Your task to perform on an android device: change notifications settings Image 0: 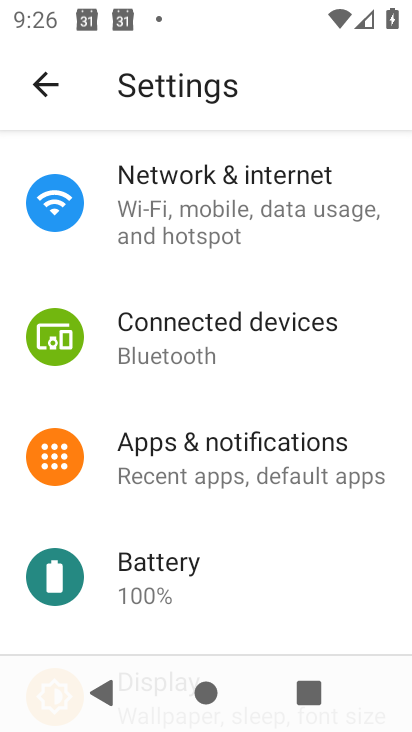
Step 0: click (218, 449)
Your task to perform on an android device: change notifications settings Image 1: 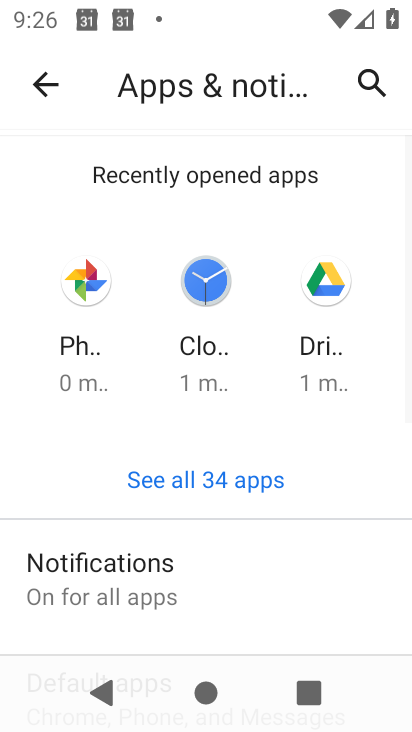
Step 1: drag from (207, 515) to (209, 168)
Your task to perform on an android device: change notifications settings Image 2: 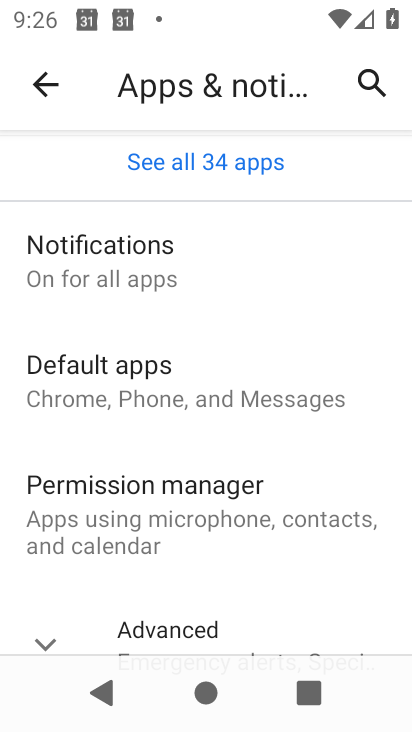
Step 2: click (126, 255)
Your task to perform on an android device: change notifications settings Image 3: 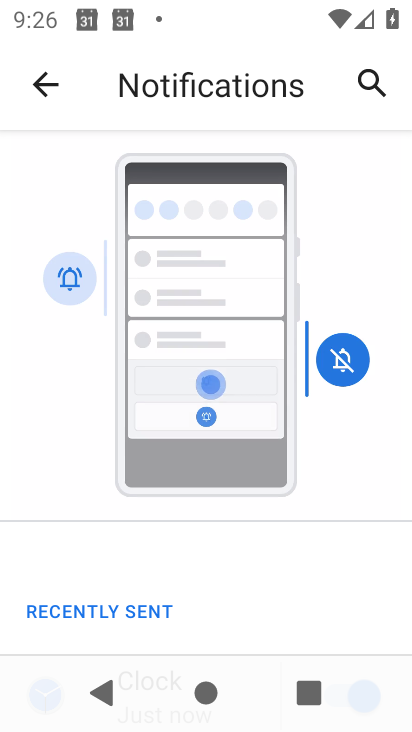
Step 3: drag from (196, 559) to (217, 154)
Your task to perform on an android device: change notifications settings Image 4: 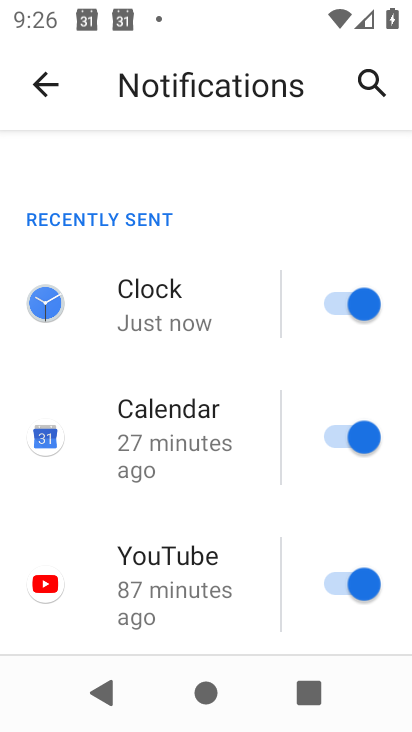
Step 4: drag from (177, 456) to (163, 40)
Your task to perform on an android device: change notifications settings Image 5: 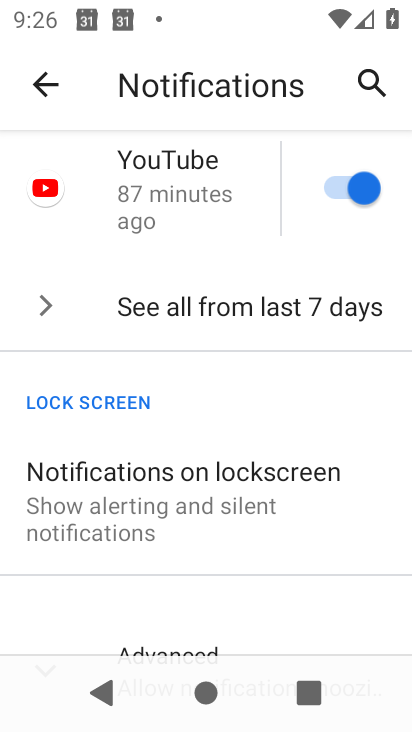
Step 5: click (116, 326)
Your task to perform on an android device: change notifications settings Image 6: 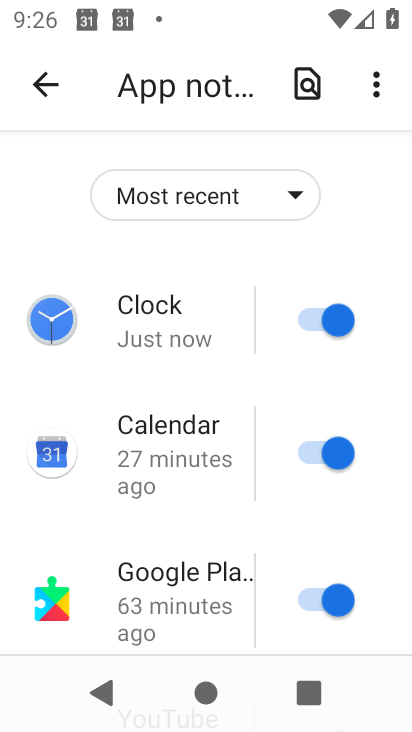
Step 6: click (292, 199)
Your task to perform on an android device: change notifications settings Image 7: 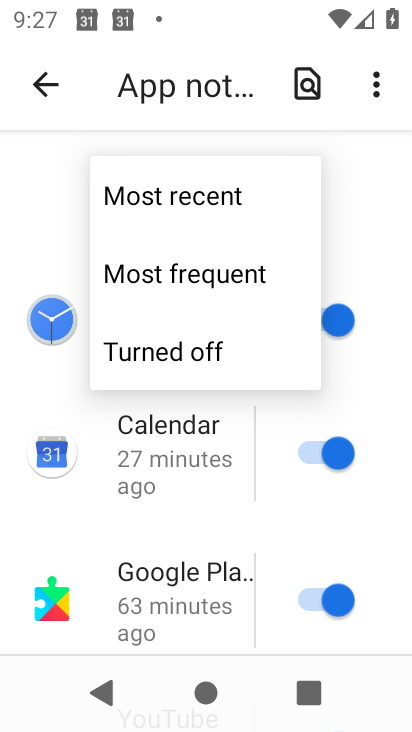
Step 7: click (212, 268)
Your task to perform on an android device: change notifications settings Image 8: 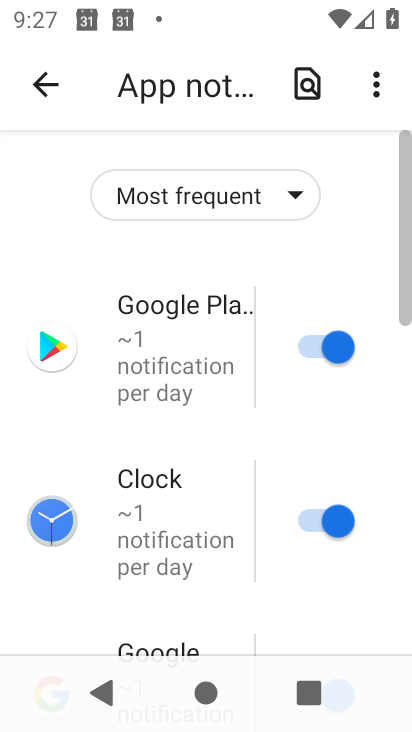
Step 8: task complete